Your task to perform on an android device: Open calendar and show me the first week of next month Image 0: 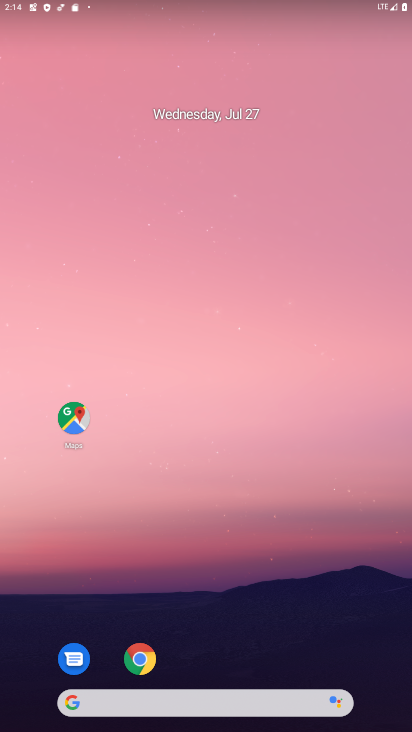
Step 0: drag from (200, 722) to (184, 174)
Your task to perform on an android device: Open calendar and show me the first week of next month Image 1: 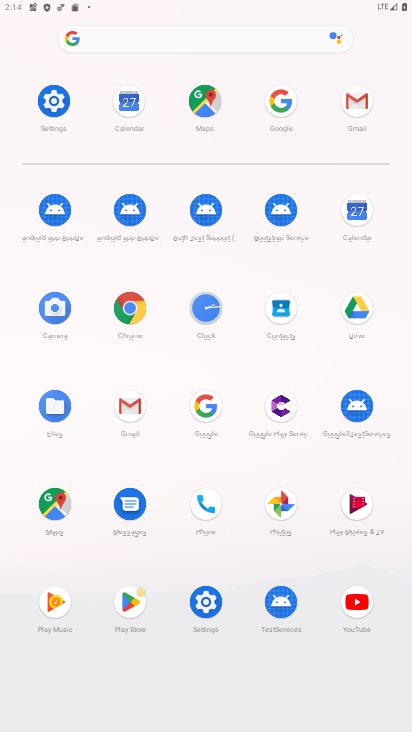
Step 1: click (362, 207)
Your task to perform on an android device: Open calendar and show me the first week of next month Image 2: 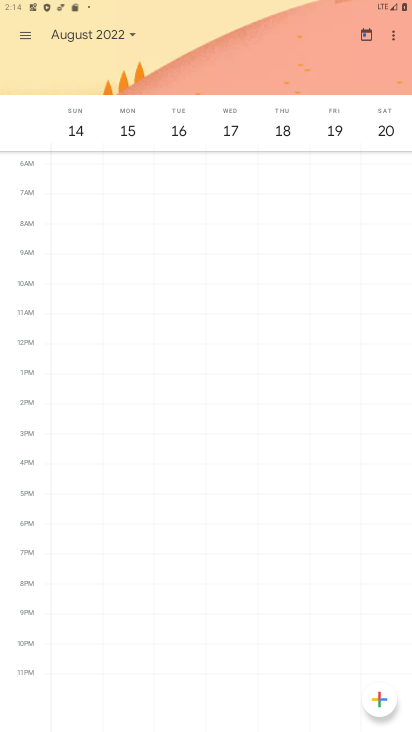
Step 2: click (134, 32)
Your task to perform on an android device: Open calendar and show me the first week of next month Image 3: 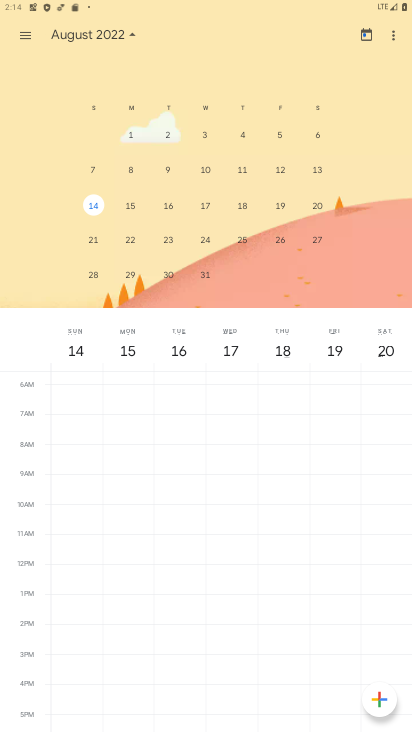
Step 3: click (128, 131)
Your task to perform on an android device: Open calendar and show me the first week of next month Image 4: 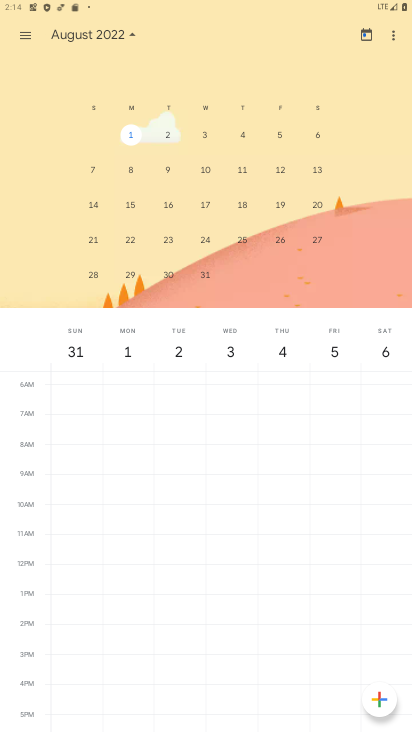
Step 4: click (26, 38)
Your task to perform on an android device: Open calendar and show me the first week of next month Image 5: 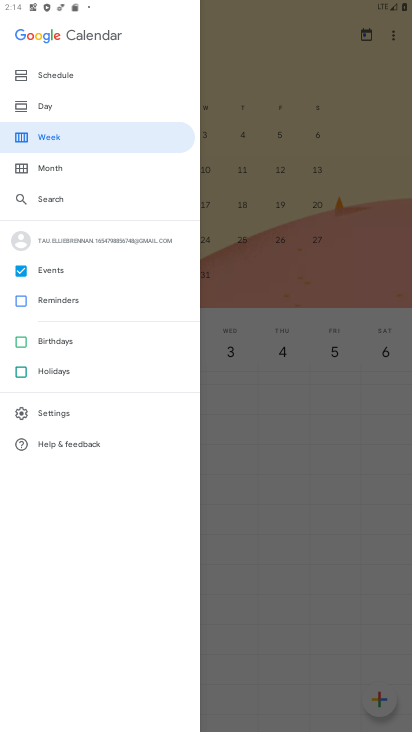
Step 5: click (61, 138)
Your task to perform on an android device: Open calendar and show me the first week of next month Image 6: 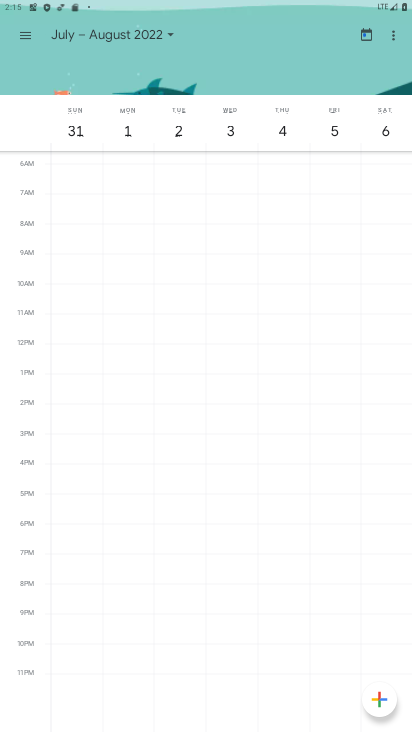
Step 6: task complete